Your task to perform on an android device: See recent photos Image 0: 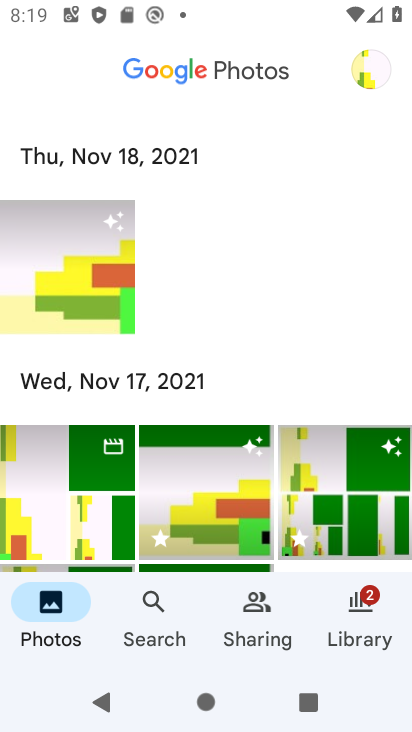
Step 0: press home button
Your task to perform on an android device: See recent photos Image 1: 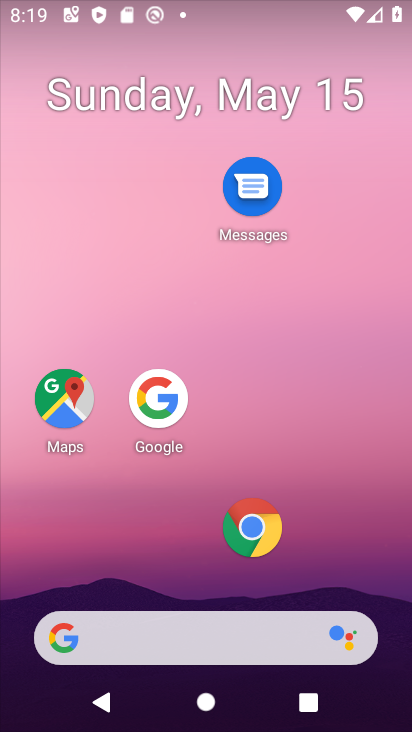
Step 1: drag from (158, 648) to (302, 135)
Your task to perform on an android device: See recent photos Image 2: 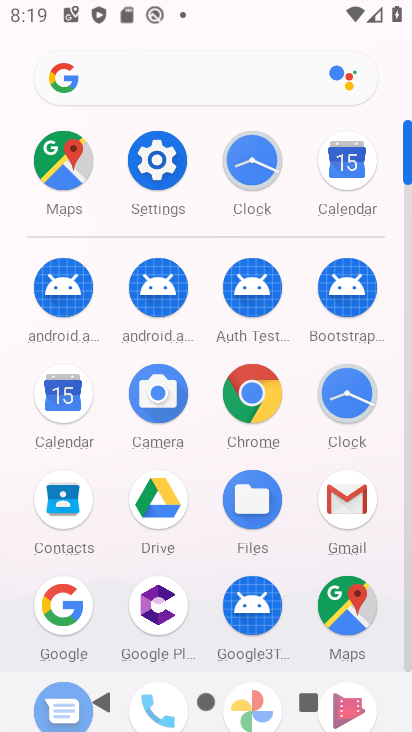
Step 2: drag from (203, 618) to (330, 312)
Your task to perform on an android device: See recent photos Image 3: 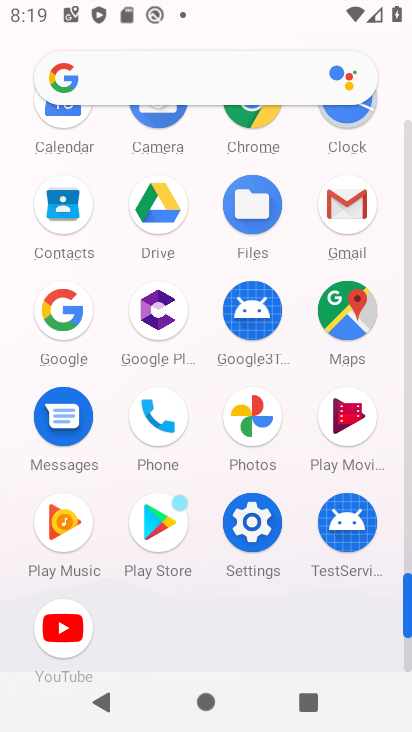
Step 3: click (253, 423)
Your task to perform on an android device: See recent photos Image 4: 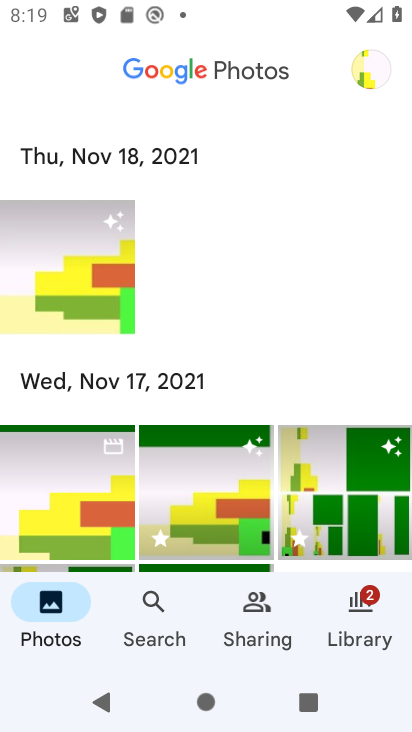
Step 4: click (364, 607)
Your task to perform on an android device: See recent photos Image 5: 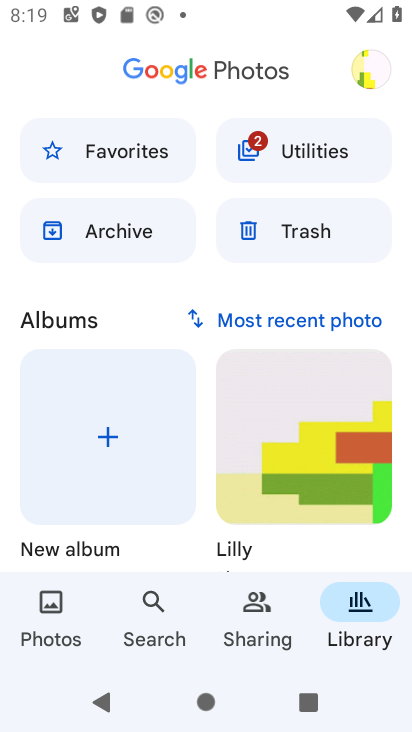
Step 5: click (335, 324)
Your task to perform on an android device: See recent photos Image 6: 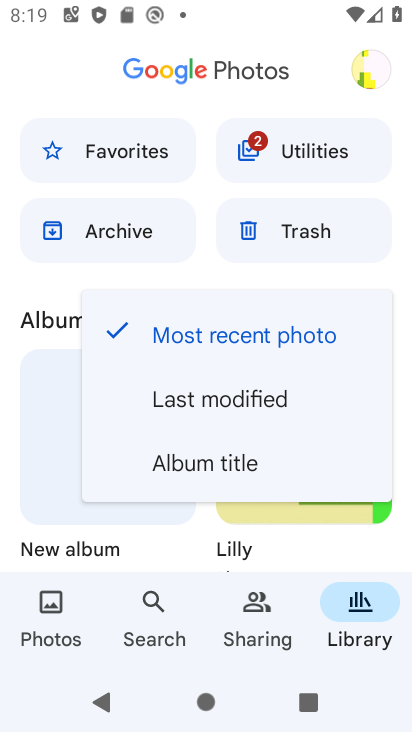
Step 6: click (326, 333)
Your task to perform on an android device: See recent photos Image 7: 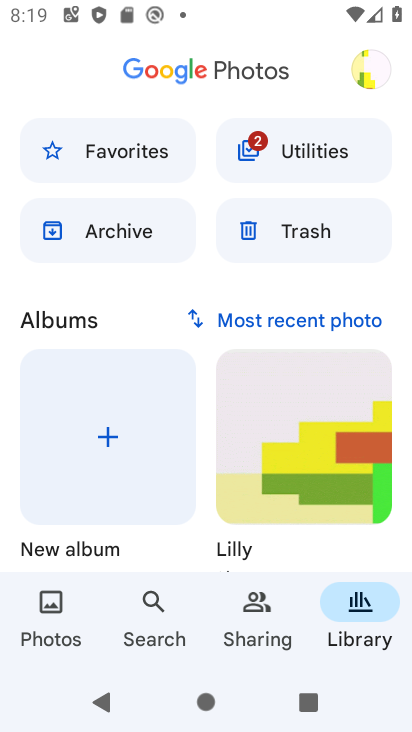
Step 7: task complete